Your task to perform on an android device: Go to calendar. Show me events next week Image 0: 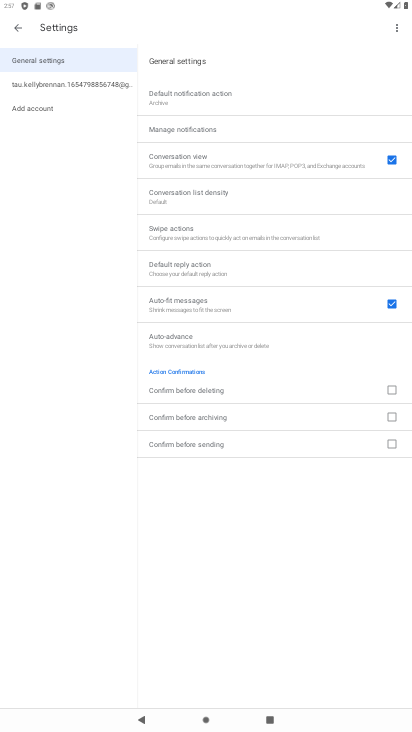
Step 0: drag from (214, 608) to (253, 286)
Your task to perform on an android device: Go to calendar. Show me events next week Image 1: 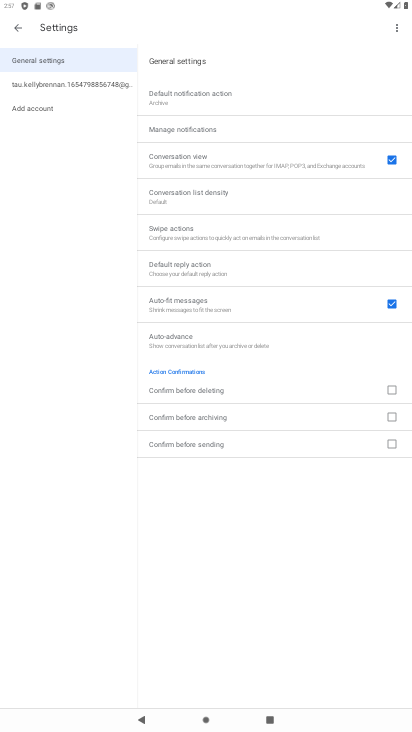
Step 1: press home button
Your task to perform on an android device: Go to calendar. Show me events next week Image 2: 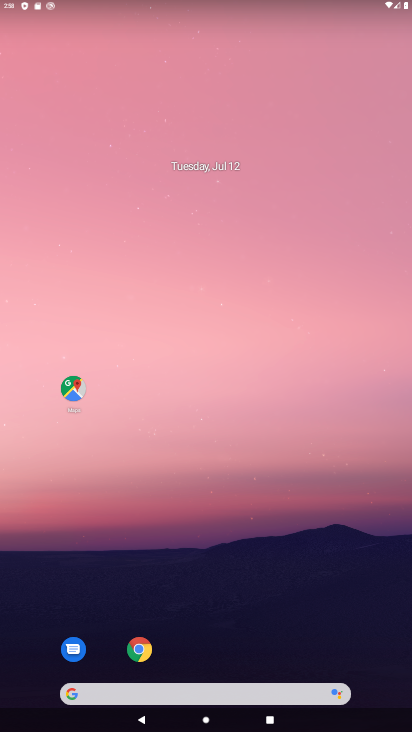
Step 2: drag from (167, 545) to (173, 221)
Your task to perform on an android device: Go to calendar. Show me events next week Image 3: 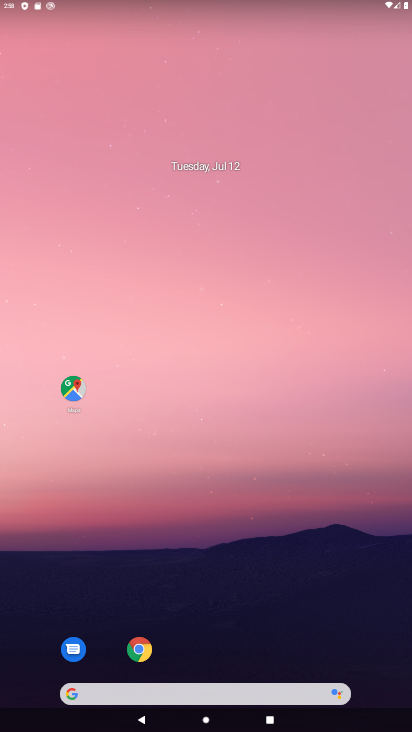
Step 3: drag from (303, 675) to (299, 57)
Your task to perform on an android device: Go to calendar. Show me events next week Image 4: 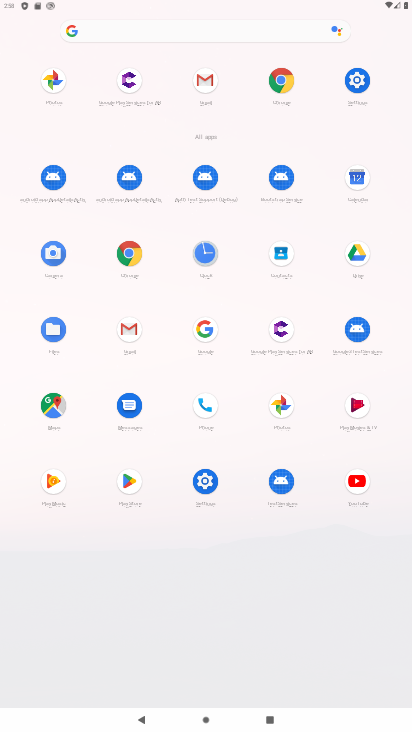
Step 4: click (354, 190)
Your task to perform on an android device: Go to calendar. Show me events next week Image 5: 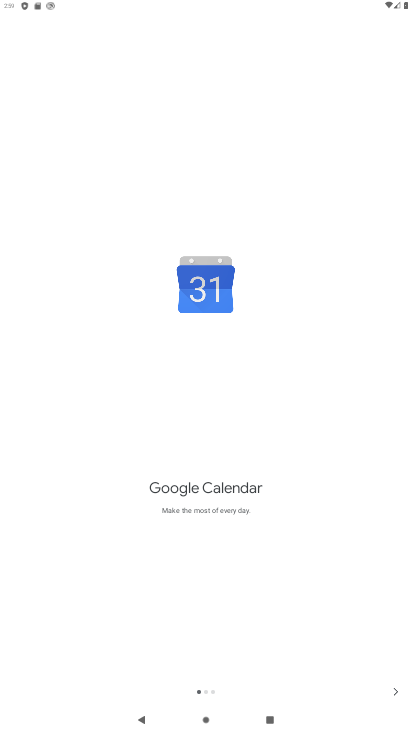
Step 5: click (392, 688)
Your task to perform on an android device: Go to calendar. Show me events next week Image 6: 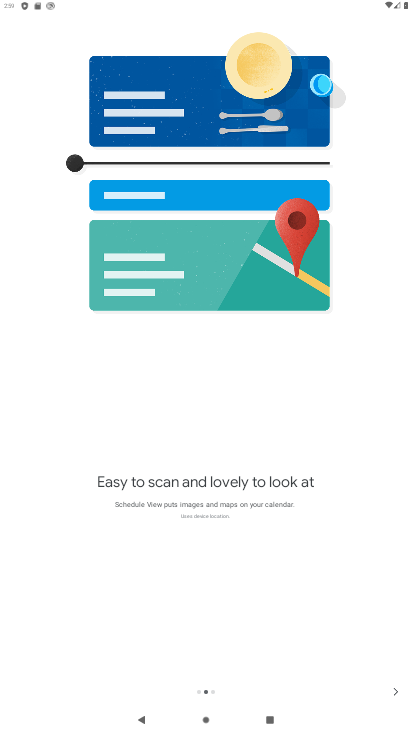
Step 6: click (392, 688)
Your task to perform on an android device: Go to calendar. Show me events next week Image 7: 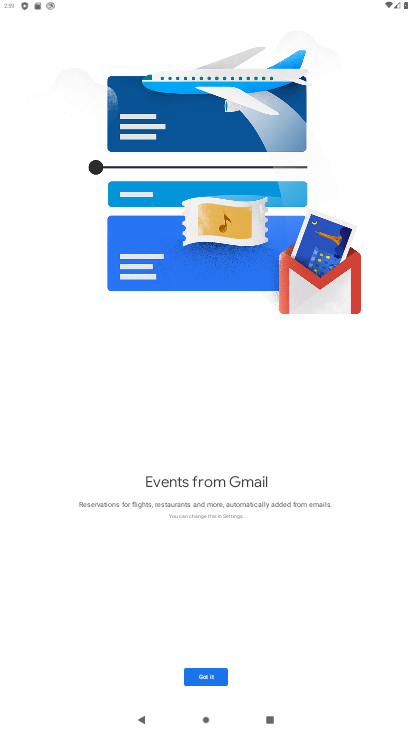
Step 7: click (222, 679)
Your task to perform on an android device: Go to calendar. Show me events next week Image 8: 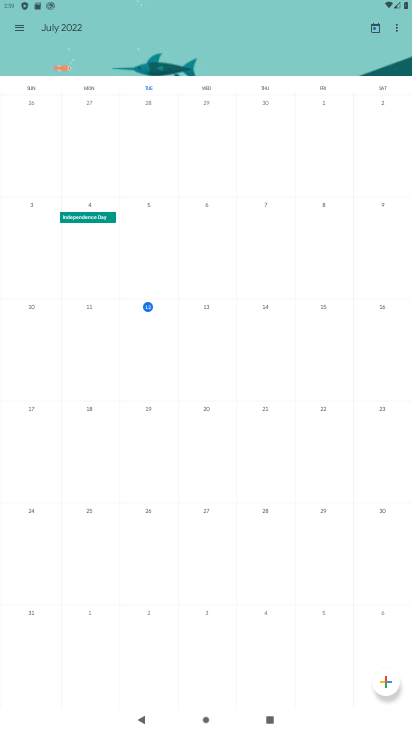
Step 8: click (96, 410)
Your task to perform on an android device: Go to calendar. Show me events next week Image 9: 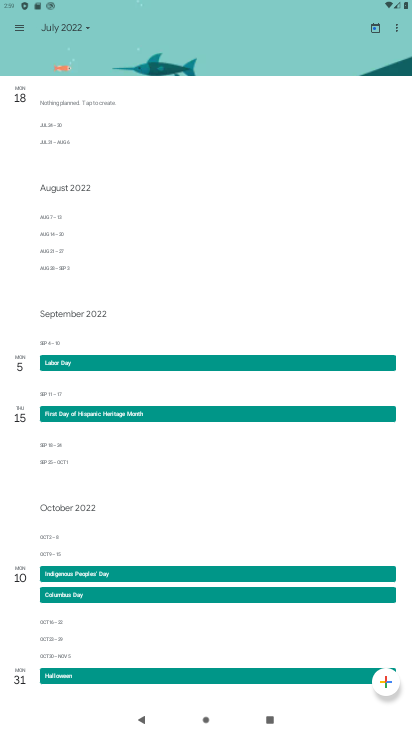
Step 9: task complete